Your task to perform on an android device: choose inbox layout in the gmail app Image 0: 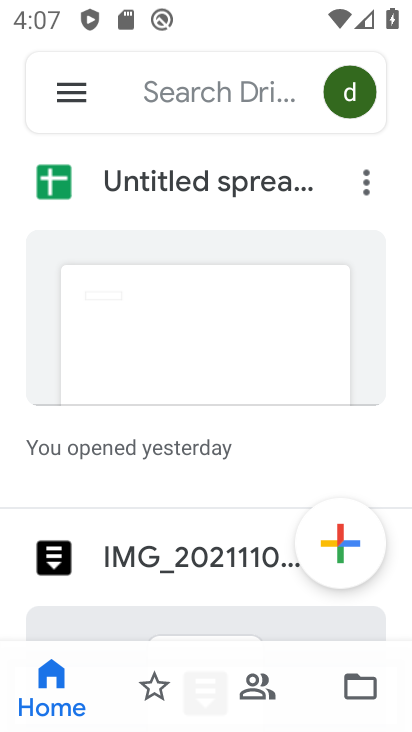
Step 0: press home button
Your task to perform on an android device: choose inbox layout in the gmail app Image 1: 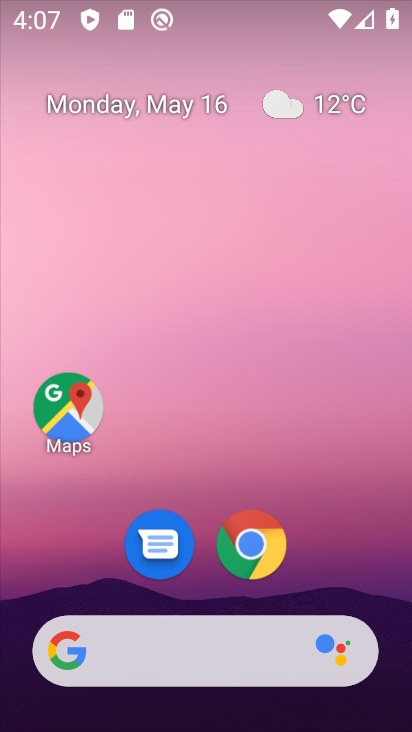
Step 1: drag from (342, 529) to (196, 120)
Your task to perform on an android device: choose inbox layout in the gmail app Image 2: 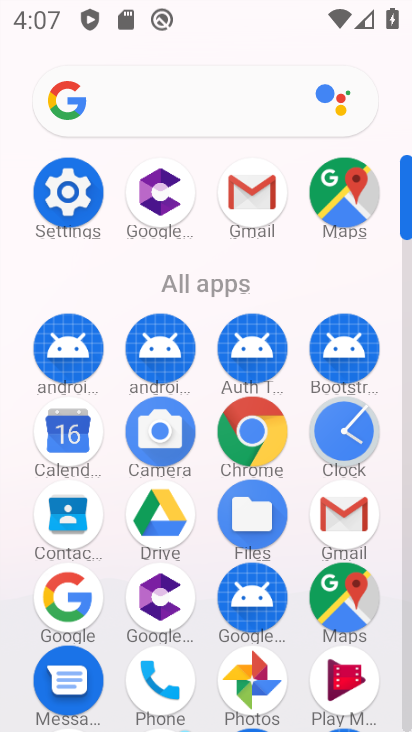
Step 2: click (253, 192)
Your task to perform on an android device: choose inbox layout in the gmail app Image 3: 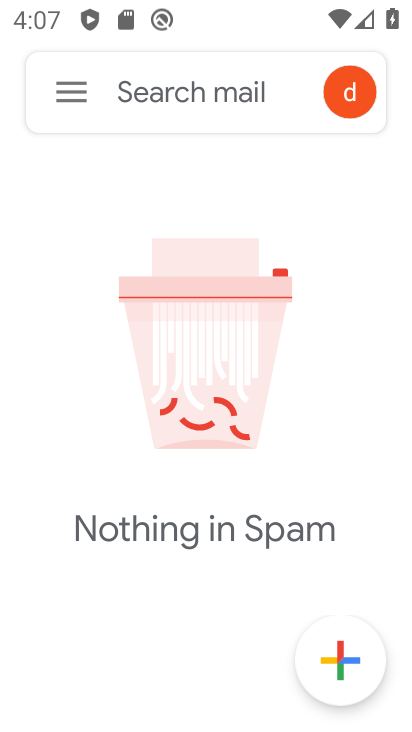
Step 3: click (65, 92)
Your task to perform on an android device: choose inbox layout in the gmail app Image 4: 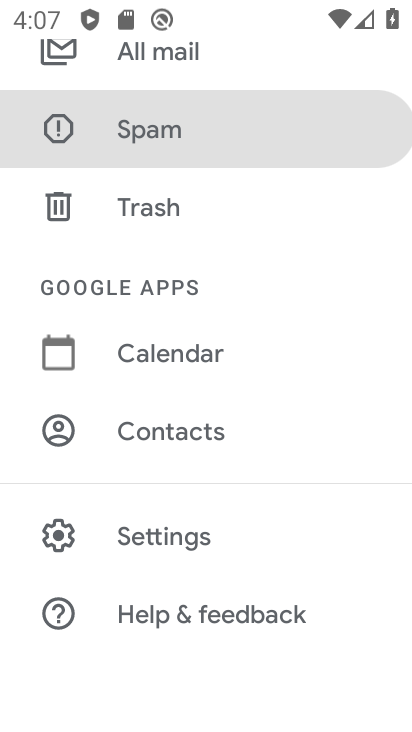
Step 4: click (155, 532)
Your task to perform on an android device: choose inbox layout in the gmail app Image 5: 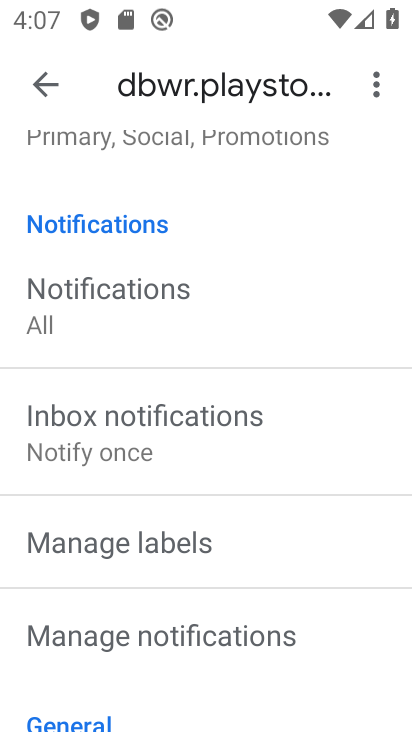
Step 5: drag from (111, 492) to (139, 388)
Your task to perform on an android device: choose inbox layout in the gmail app Image 6: 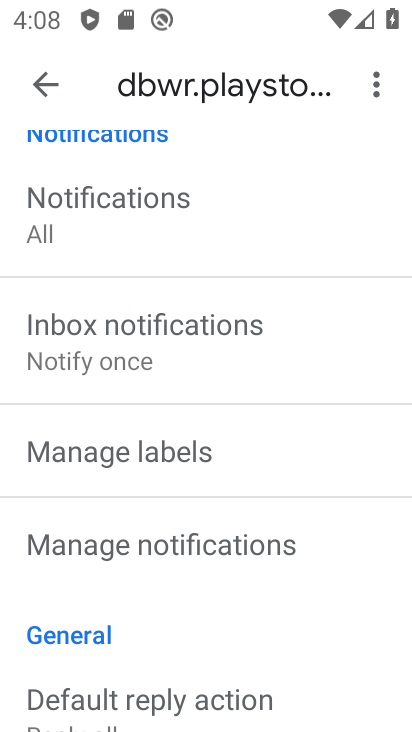
Step 6: drag from (209, 275) to (207, 546)
Your task to perform on an android device: choose inbox layout in the gmail app Image 7: 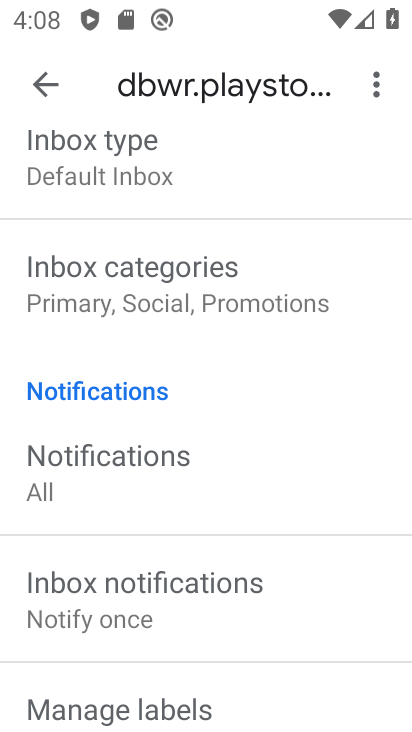
Step 7: drag from (200, 239) to (241, 402)
Your task to perform on an android device: choose inbox layout in the gmail app Image 8: 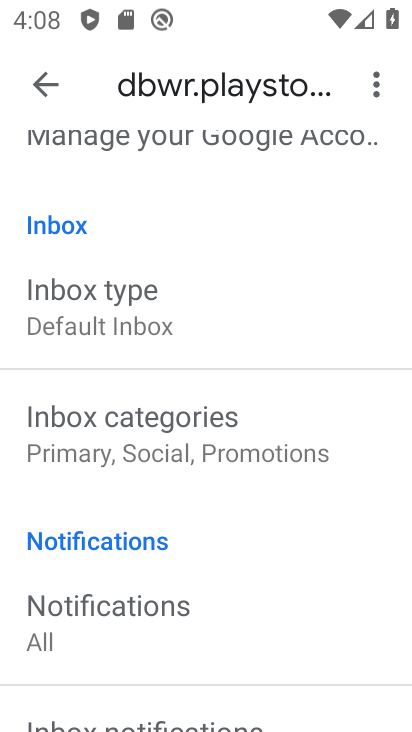
Step 8: click (143, 310)
Your task to perform on an android device: choose inbox layout in the gmail app Image 9: 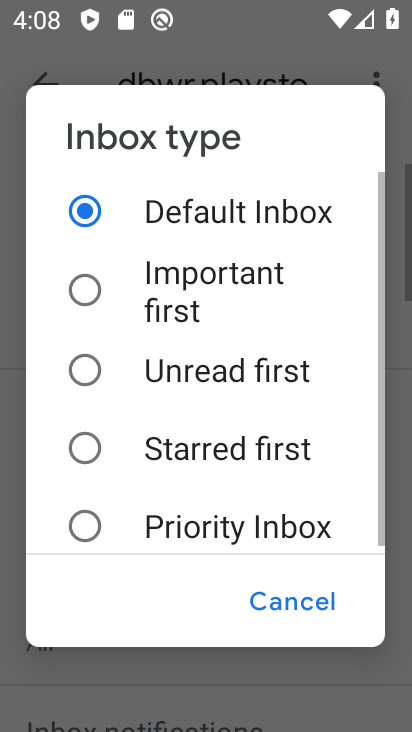
Step 9: click (84, 289)
Your task to perform on an android device: choose inbox layout in the gmail app Image 10: 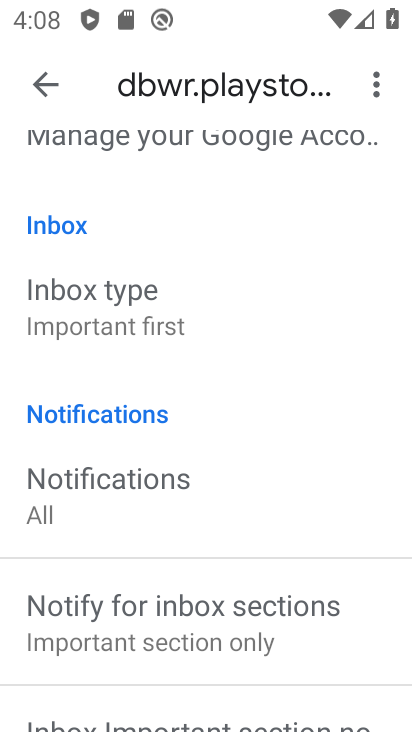
Step 10: task complete